Your task to perform on an android device: turn off wifi Image 0: 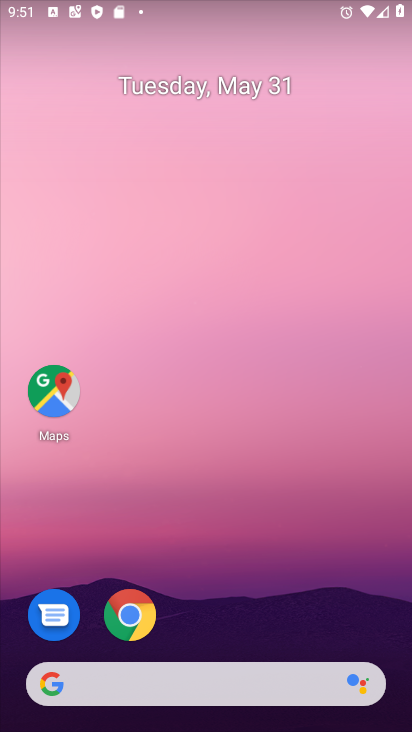
Step 0: drag from (358, 631) to (341, 170)
Your task to perform on an android device: turn off wifi Image 1: 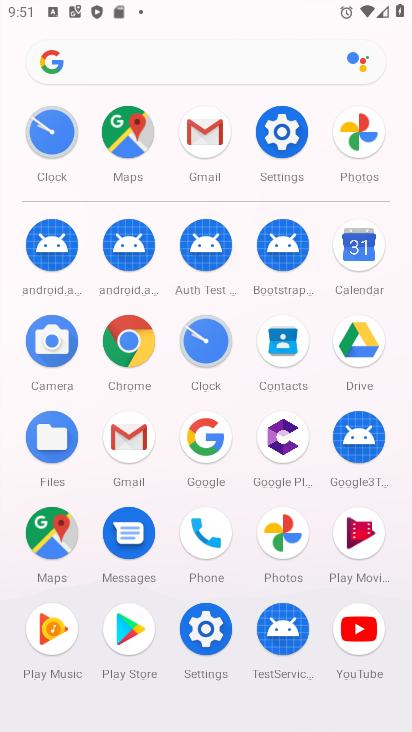
Step 1: click (208, 629)
Your task to perform on an android device: turn off wifi Image 2: 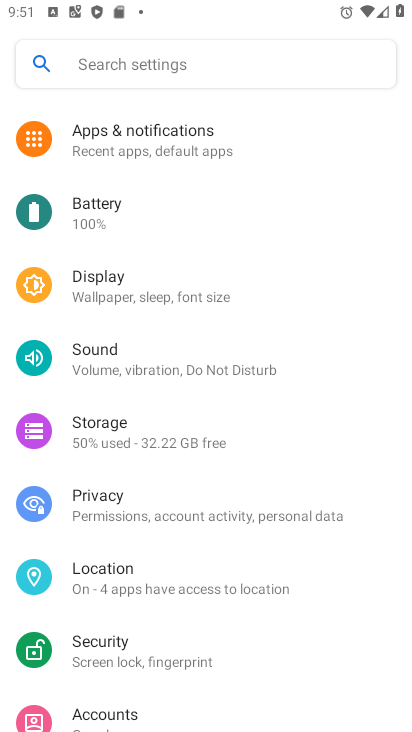
Step 2: drag from (307, 209) to (306, 473)
Your task to perform on an android device: turn off wifi Image 3: 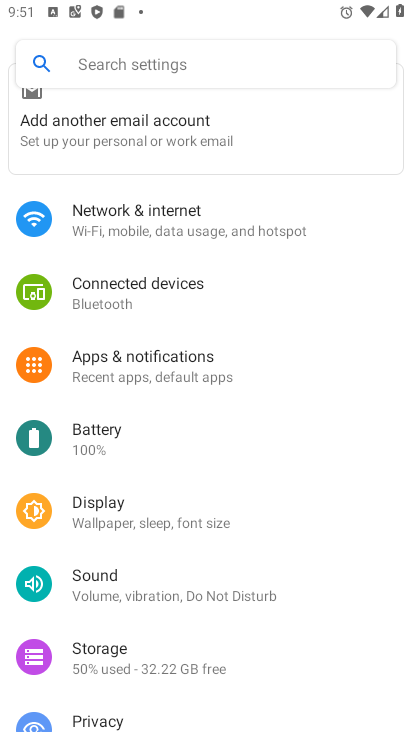
Step 3: click (110, 231)
Your task to perform on an android device: turn off wifi Image 4: 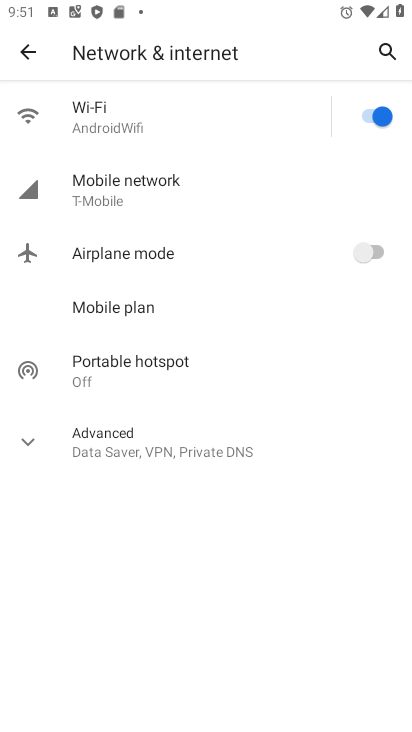
Step 4: click (365, 109)
Your task to perform on an android device: turn off wifi Image 5: 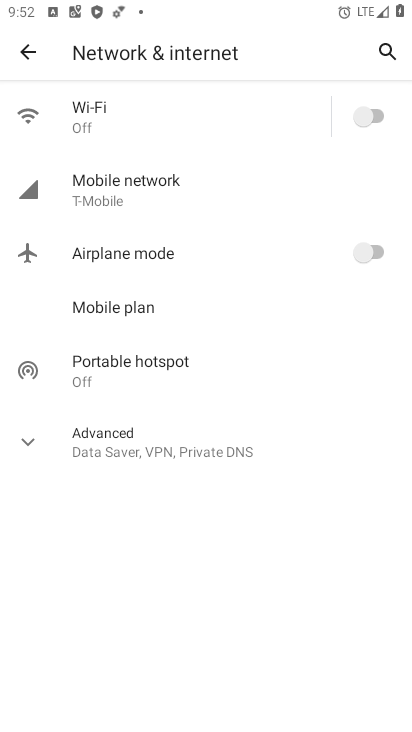
Step 5: task complete